Your task to perform on an android device: see sites visited before in the chrome app Image 0: 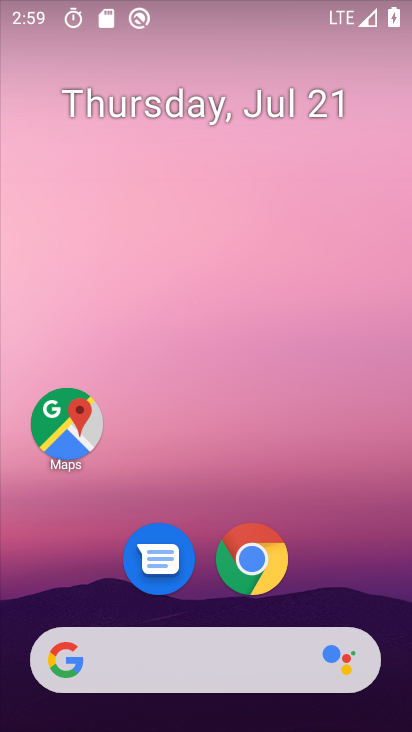
Step 0: drag from (369, 598) to (372, 163)
Your task to perform on an android device: see sites visited before in the chrome app Image 1: 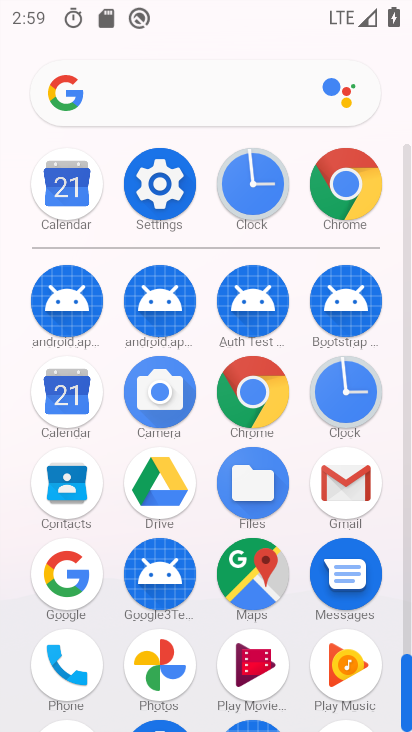
Step 1: click (260, 384)
Your task to perform on an android device: see sites visited before in the chrome app Image 2: 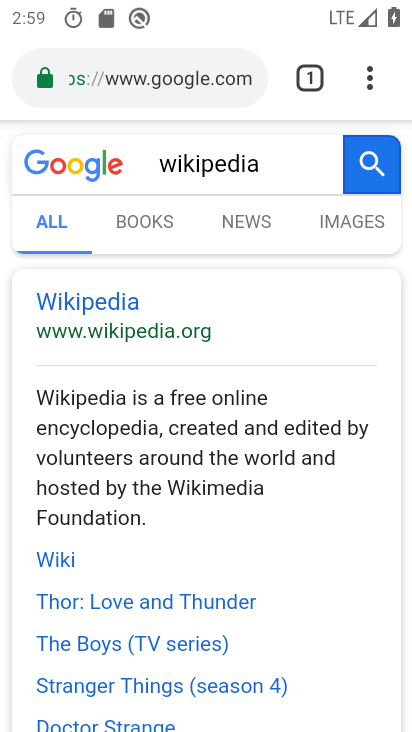
Step 2: click (369, 83)
Your task to perform on an android device: see sites visited before in the chrome app Image 3: 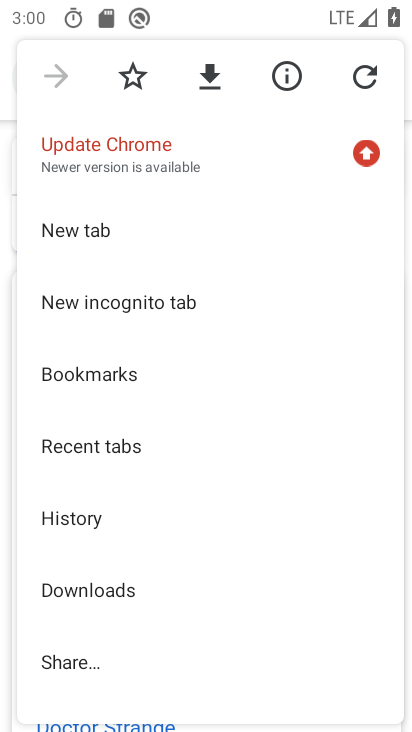
Step 3: click (84, 517)
Your task to perform on an android device: see sites visited before in the chrome app Image 4: 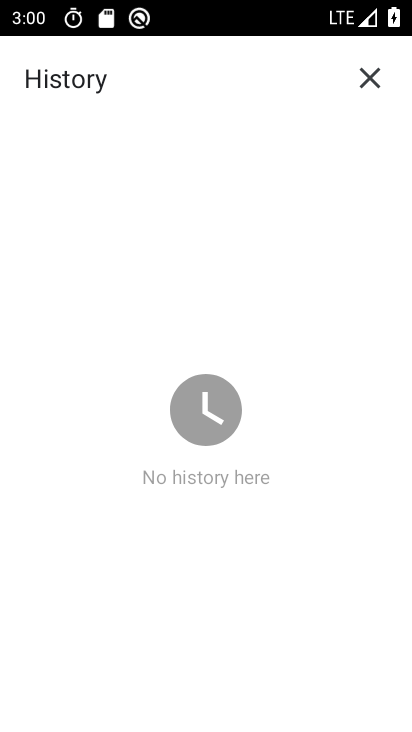
Step 4: task complete